Your task to perform on an android device: What's the news in Puerto Rico? Image 0: 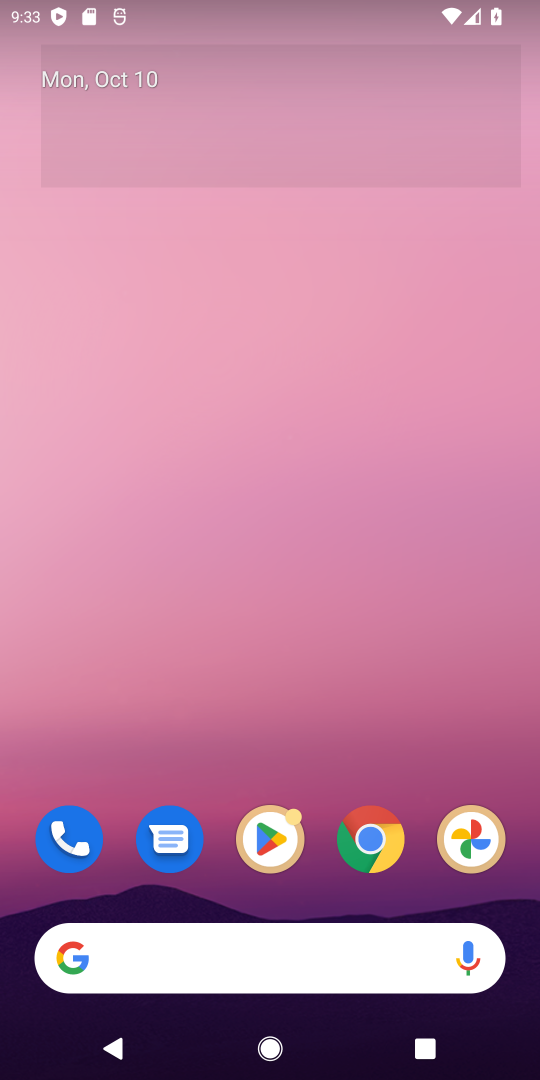
Step 0: drag from (320, 878) to (443, 239)
Your task to perform on an android device: What's the news in Puerto Rico? Image 1: 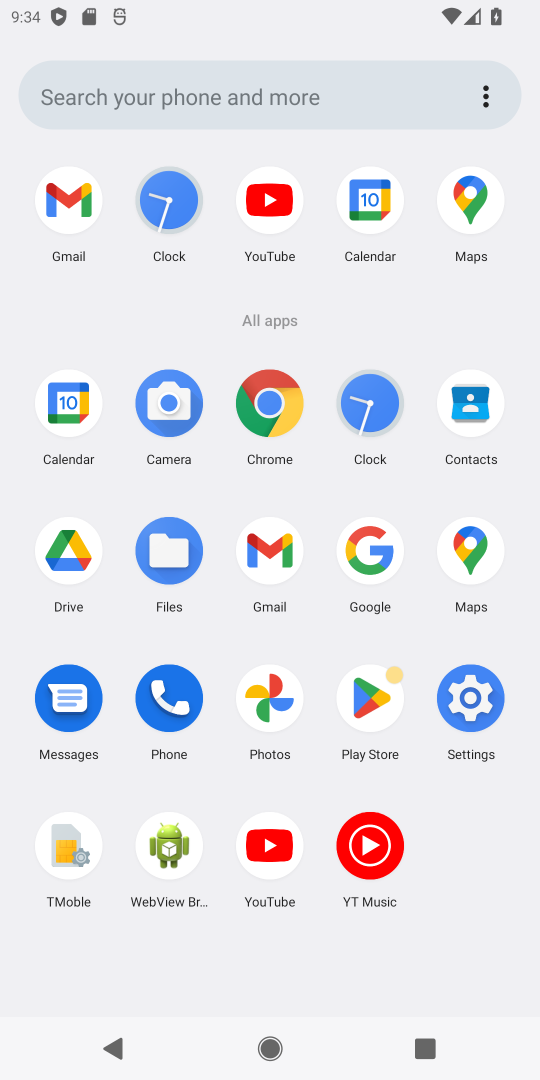
Step 1: click (264, 401)
Your task to perform on an android device: What's the news in Puerto Rico? Image 2: 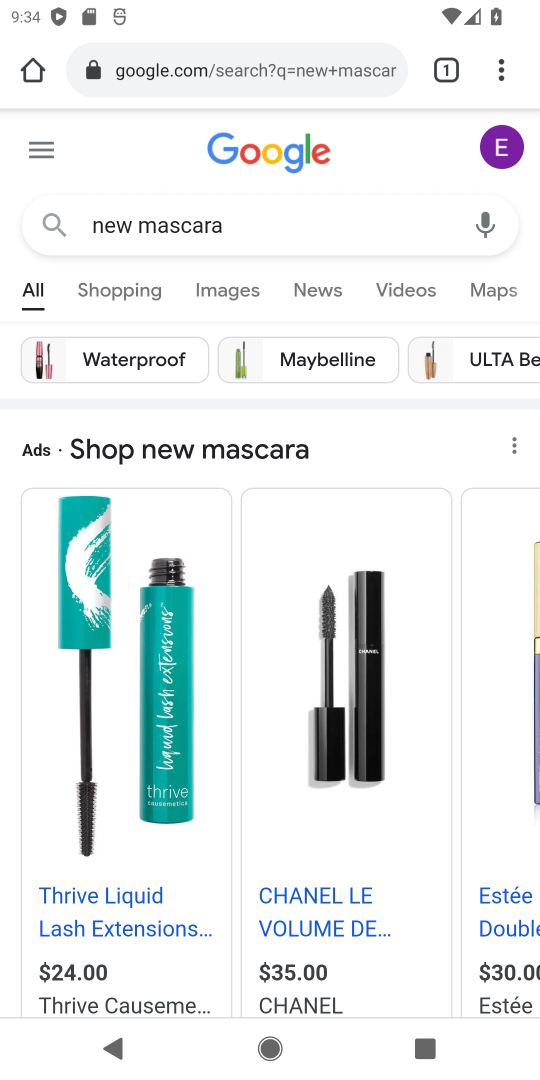
Step 2: click (201, 80)
Your task to perform on an android device: What's the news in Puerto Rico? Image 3: 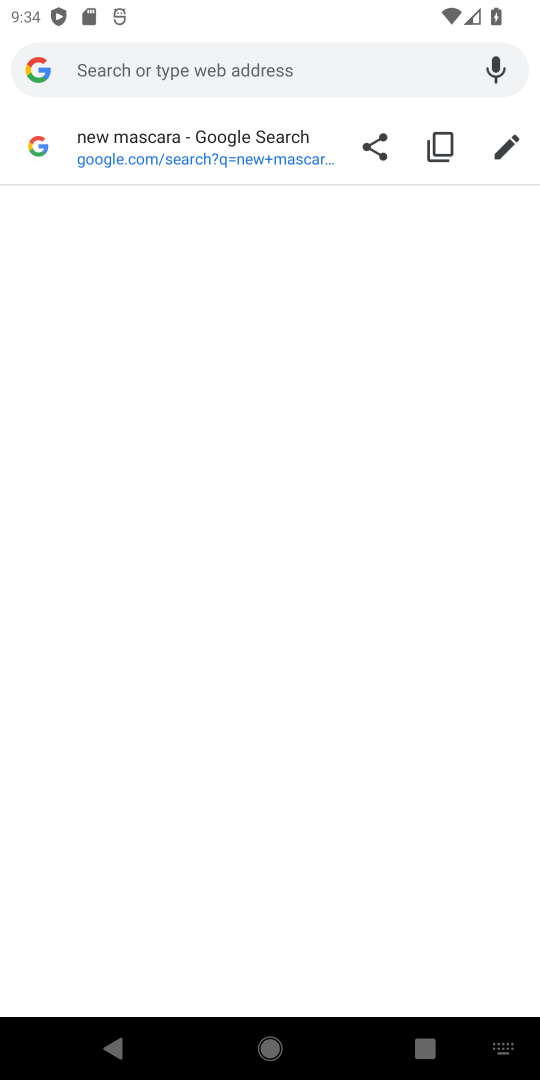
Step 3: type "What's the new in Puerto Rico?"
Your task to perform on an android device: What's the news in Puerto Rico? Image 4: 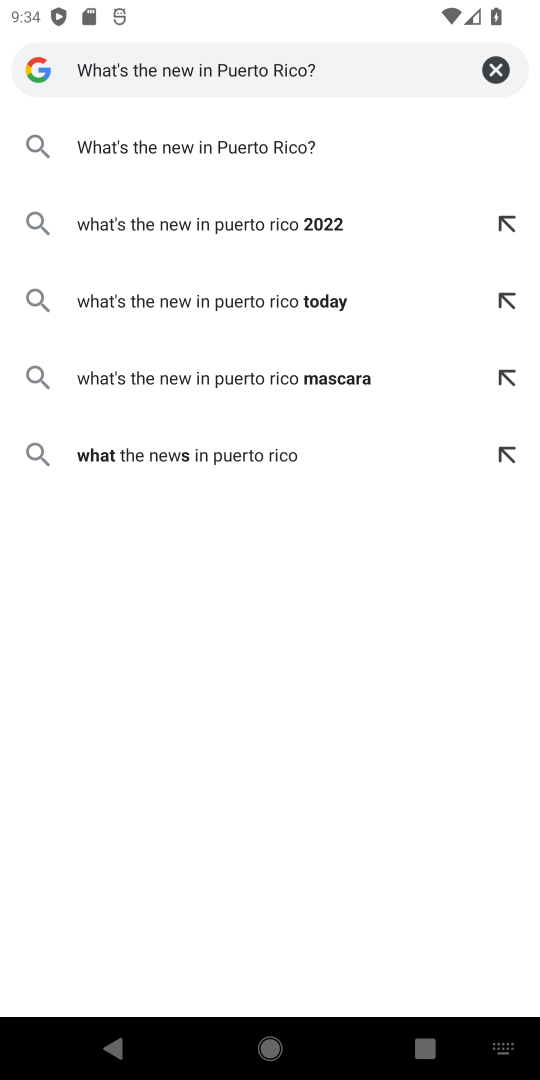
Step 4: press enter
Your task to perform on an android device: What's the news in Puerto Rico? Image 5: 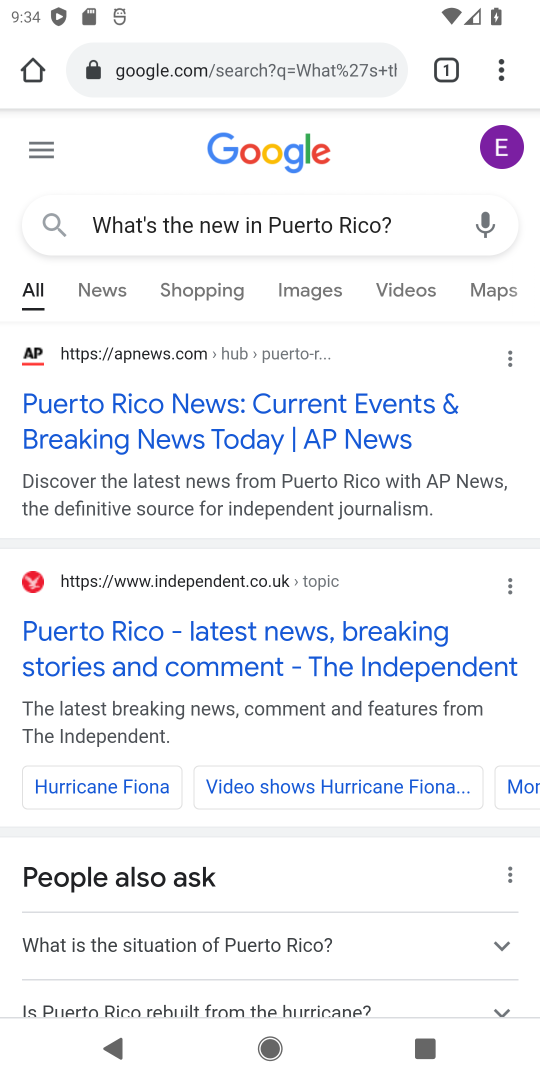
Step 5: task complete